Your task to perform on an android device: Open Google Chrome Image 0: 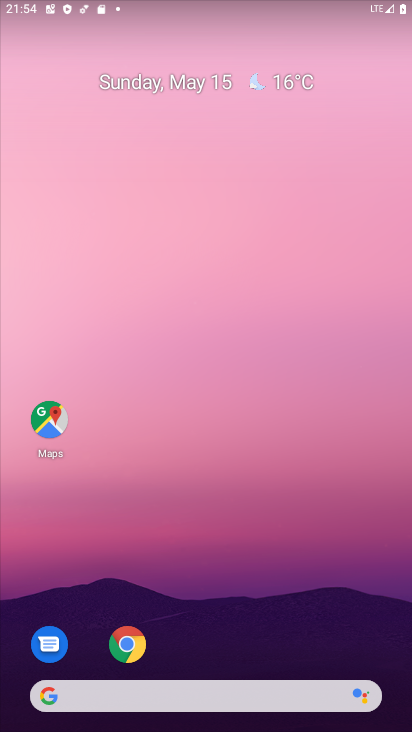
Step 0: click (134, 641)
Your task to perform on an android device: Open Google Chrome Image 1: 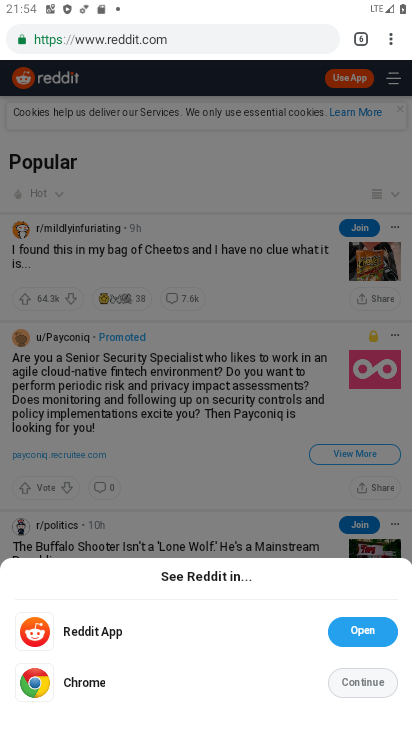
Step 1: task complete